Your task to perform on an android device: Open wifi settings Image 0: 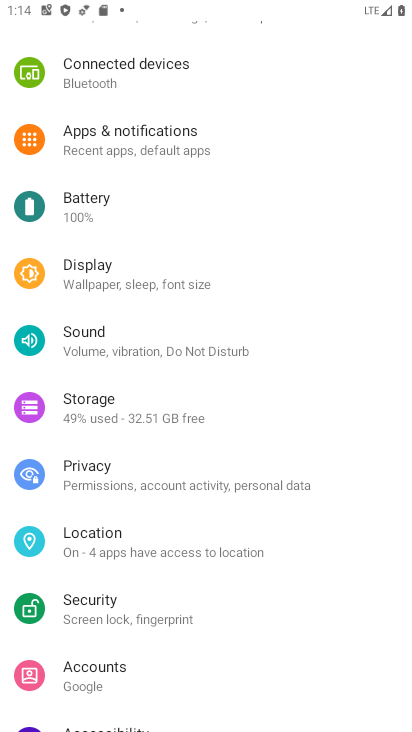
Step 0: press home button
Your task to perform on an android device: Open wifi settings Image 1: 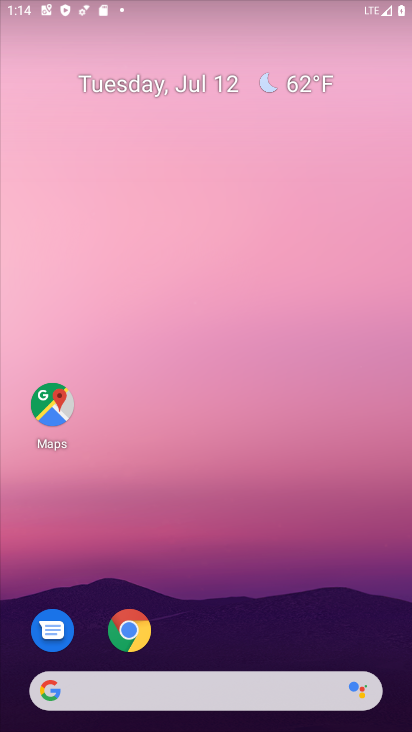
Step 1: drag from (255, 621) to (258, 93)
Your task to perform on an android device: Open wifi settings Image 2: 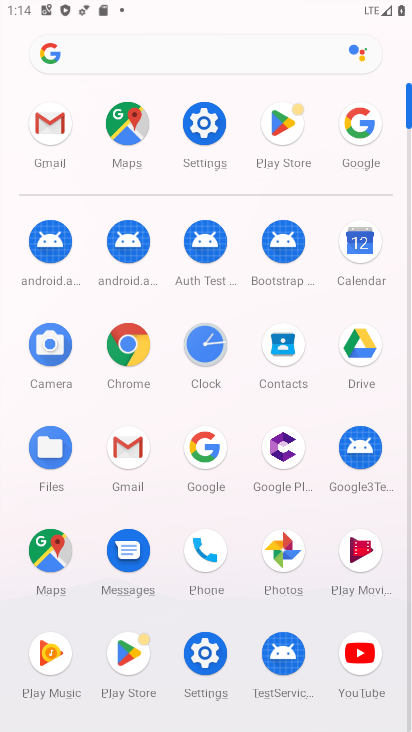
Step 2: click (210, 122)
Your task to perform on an android device: Open wifi settings Image 3: 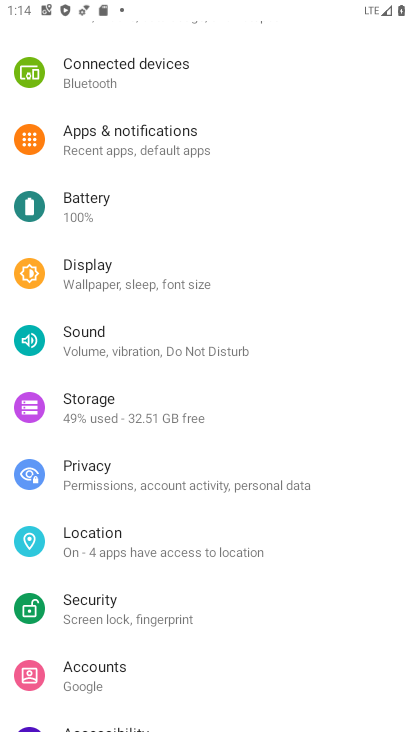
Step 3: drag from (185, 111) to (183, 697)
Your task to perform on an android device: Open wifi settings Image 4: 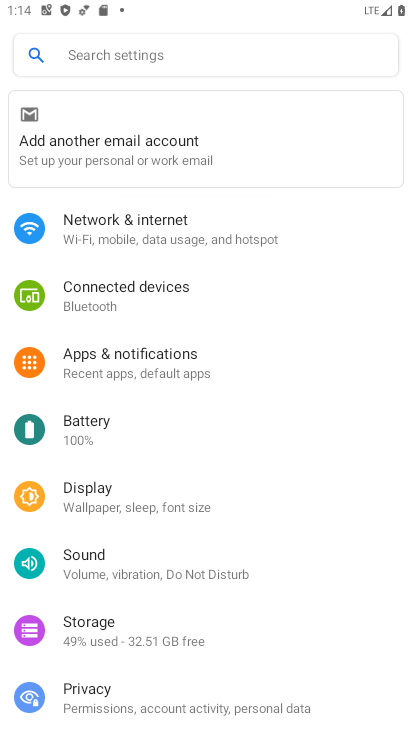
Step 4: click (174, 225)
Your task to perform on an android device: Open wifi settings Image 5: 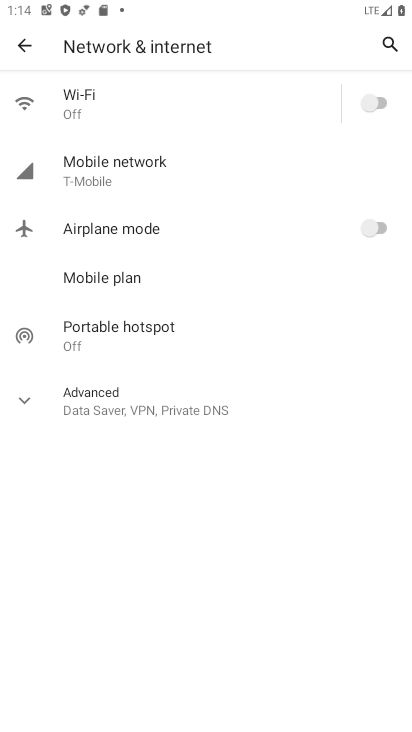
Step 5: click (118, 107)
Your task to perform on an android device: Open wifi settings Image 6: 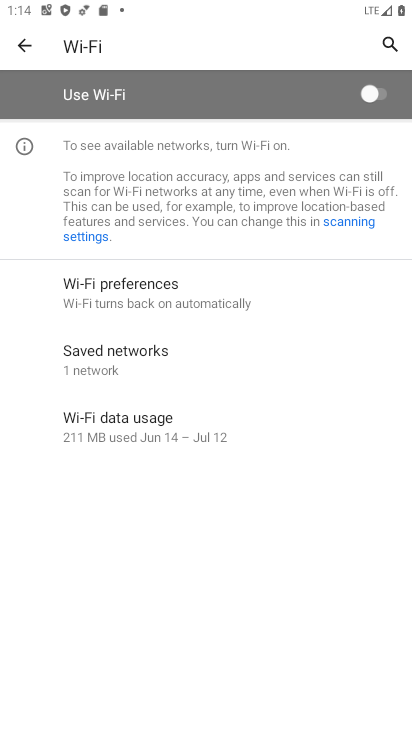
Step 6: click (377, 94)
Your task to perform on an android device: Open wifi settings Image 7: 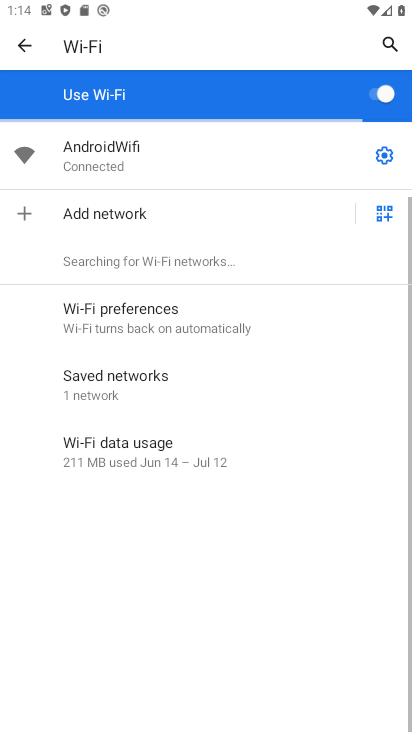
Step 7: click (378, 154)
Your task to perform on an android device: Open wifi settings Image 8: 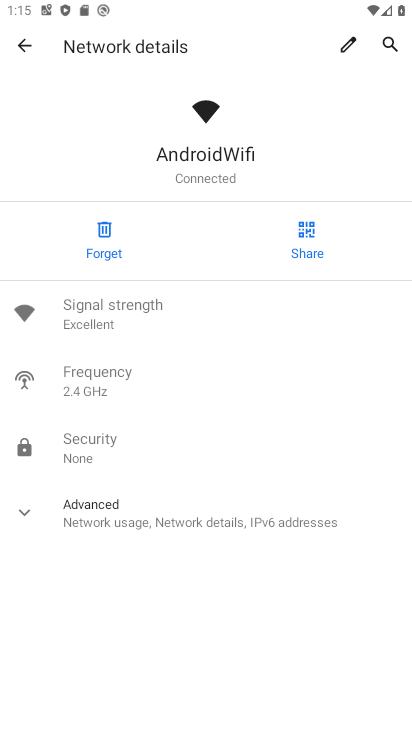
Step 8: task complete